Your task to perform on an android device: toggle airplane mode Image 0: 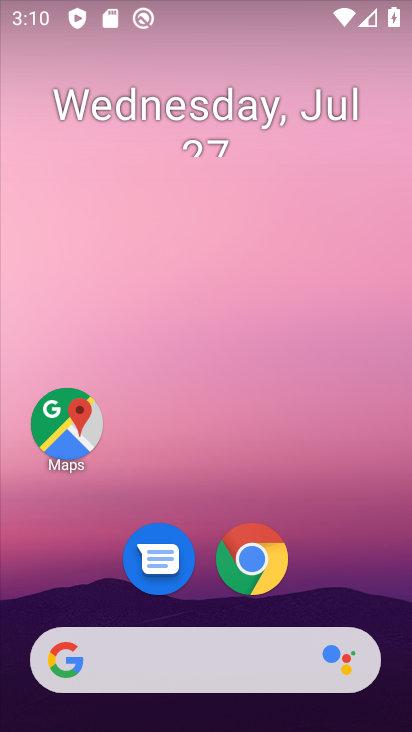
Step 0: drag from (356, 15) to (240, 667)
Your task to perform on an android device: toggle airplane mode Image 1: 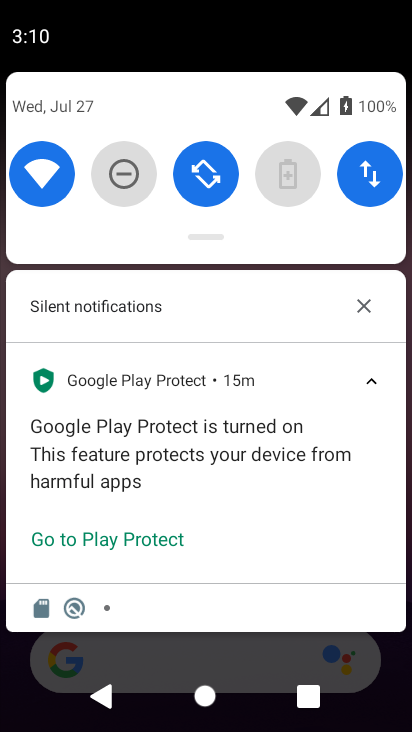
Step 1: drag from (190, 227) to (262, 714)
Your task to perform on an android device: toggle airplane mode Image 2: 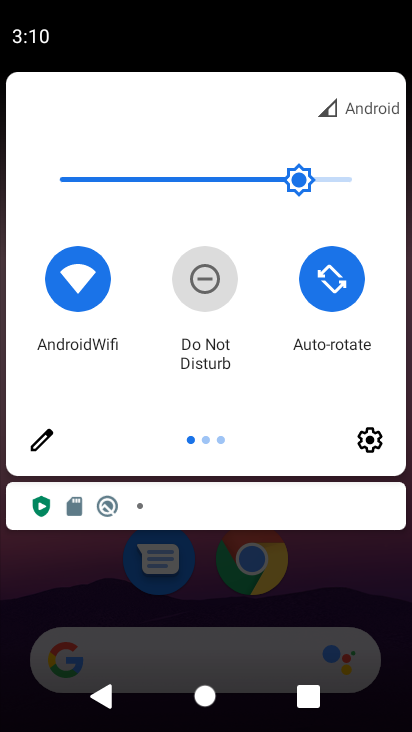
Step 2: drag from (400, 277) to (22, 290)
Your task to perform on an android device: toggle airplane mode Image 3: 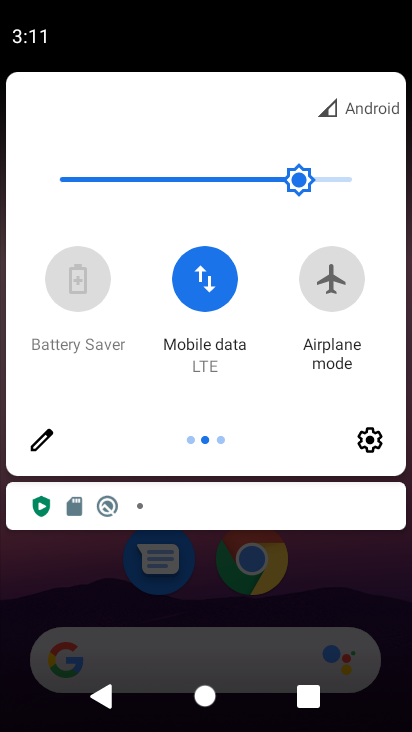
Step 3: click (331, 284)
Your task to perform on an android device: toggle airplane mode Image 4: 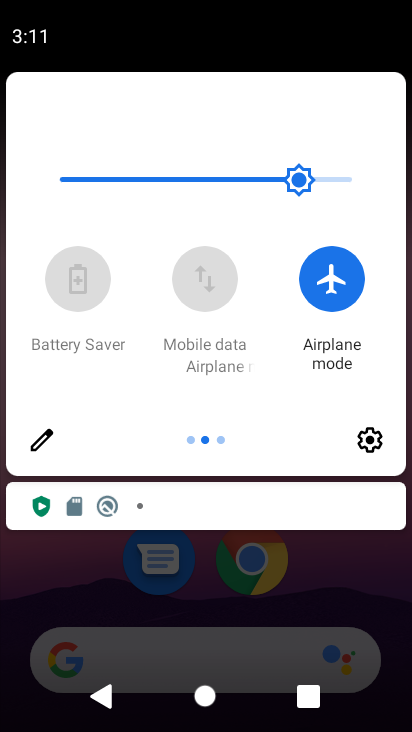
Step 4: task complete